Your task to perform on an android device: Check the weather Image 0: 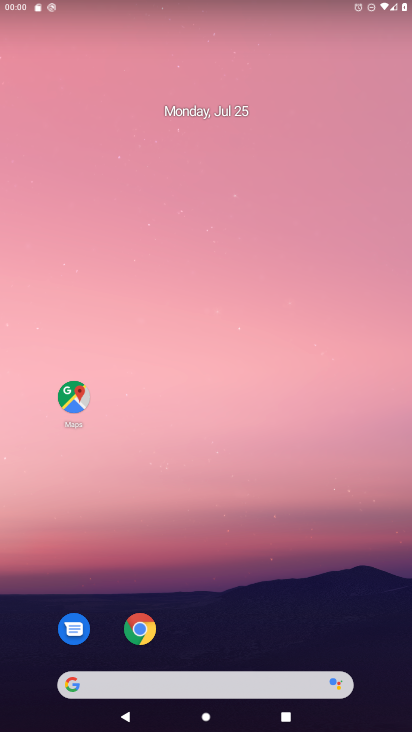
Step 0: click (235, 211)
Your task to perform on an android device: Check the weather Image 1: 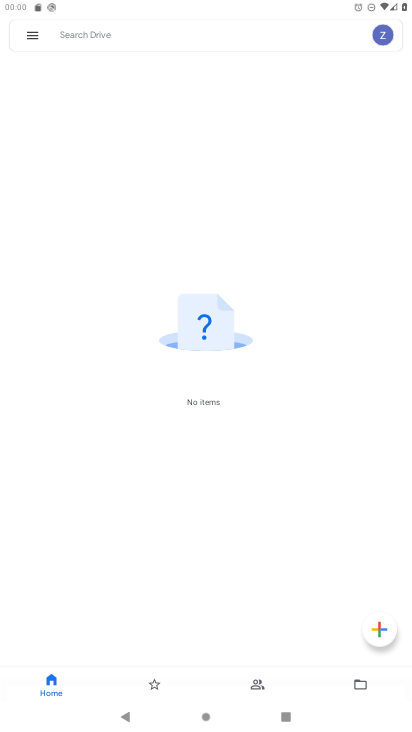
Step 1: press home button
Your task to perform on an android device: Check the weather Image 2: 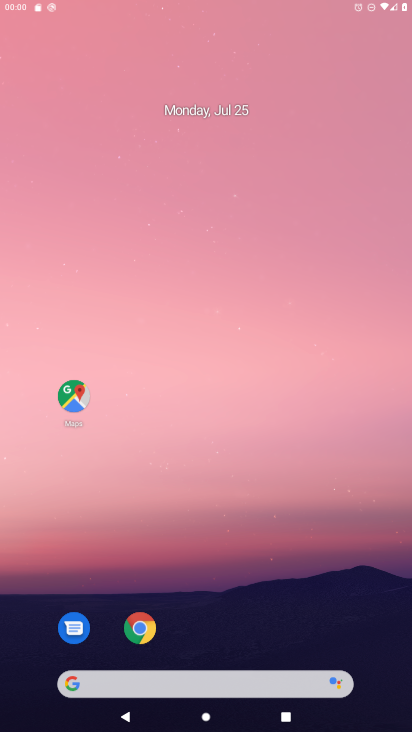
Step 2: drag from (231, 621) to (264, 29)
Your task to perform on an android device: Check the weather Image 3: 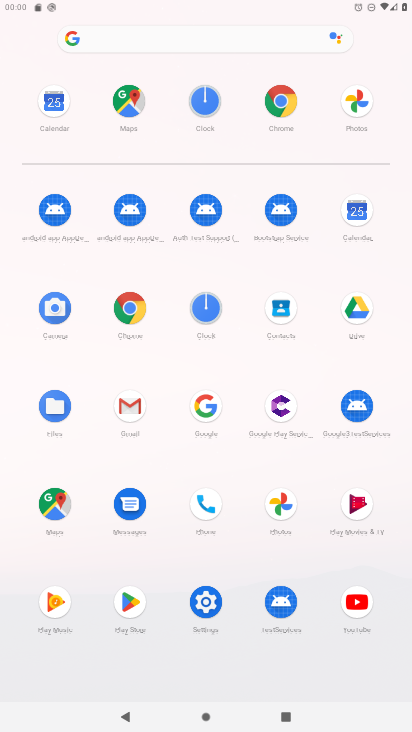
Step 3: click (145, 39)
Your task to perform on an android device: Check the weather Image 4: 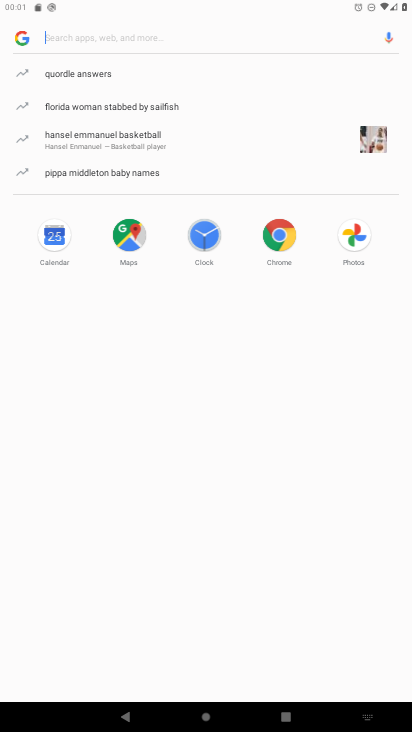
Step 4: type "weather"
Your task to perform on an android device: Check the weather Image 5: 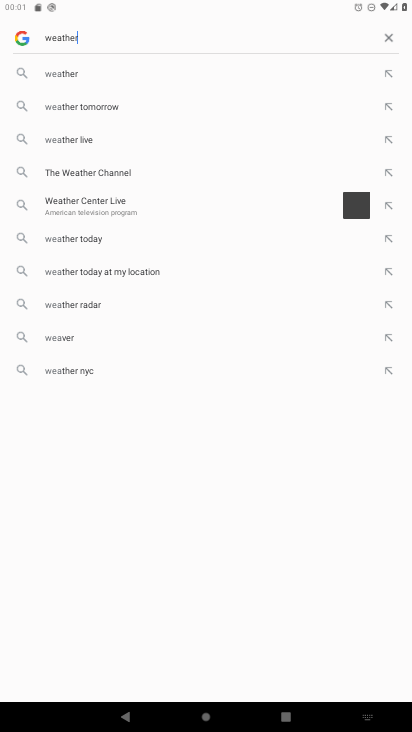
Step 5: type ""
Your task to perform on an android device: Check the weather Image 6: 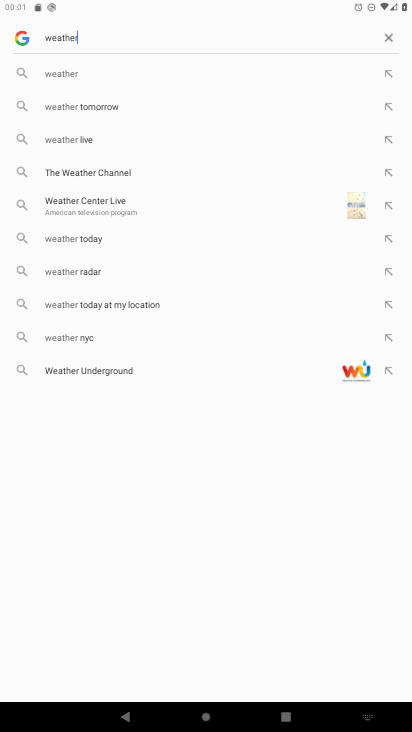
Step 6: click (79, 69)
Your task to perform on an android device: Check the weather Image 7: 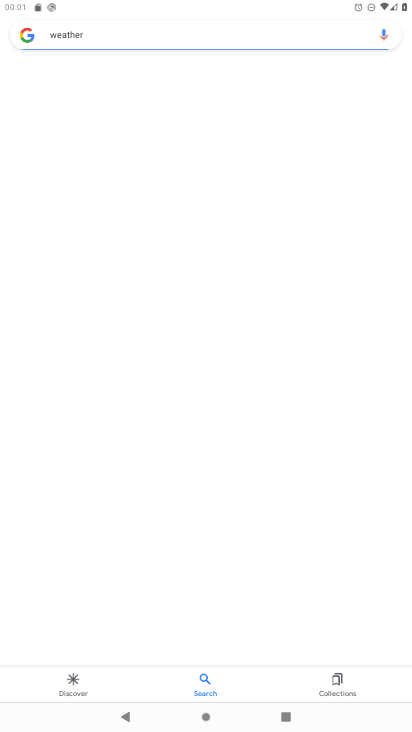
Step 7: task complete